Your task to perform on an android device: check google app version Image 0: 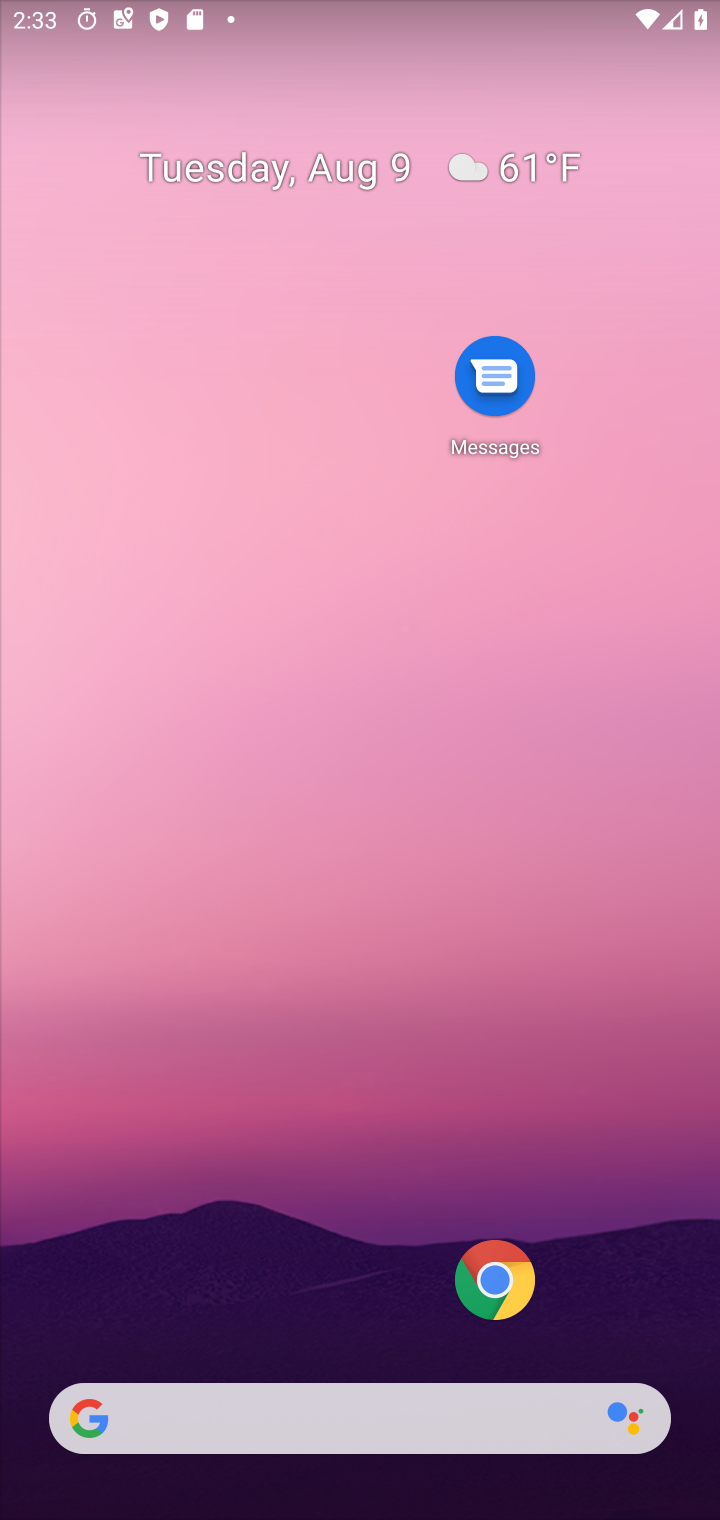
Step 0: drag from (280, 1421) to (550, 340)
Your task to perform on an android device: check google app version Image 1: 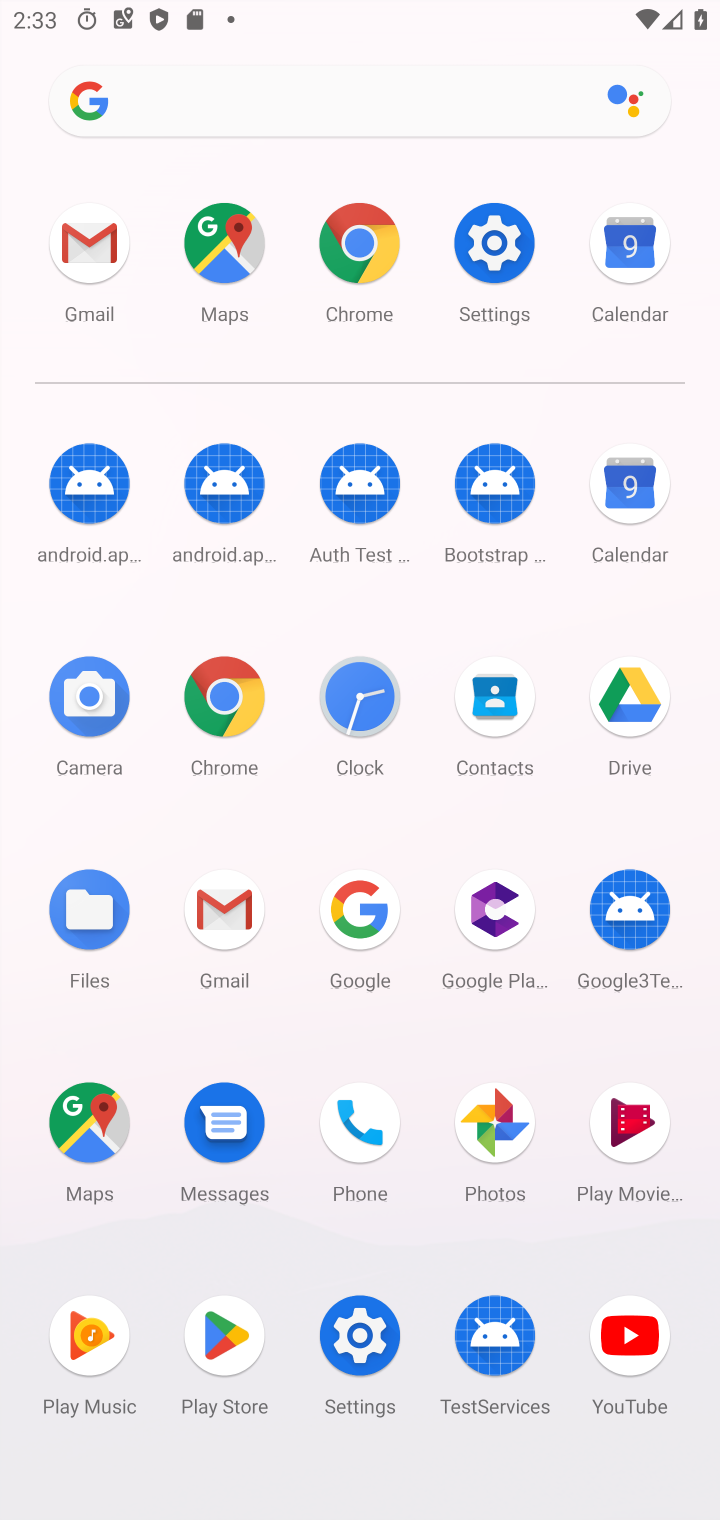
Step 1: click (349, 903)
Your task to perform on an android device: check google app version Image 2: 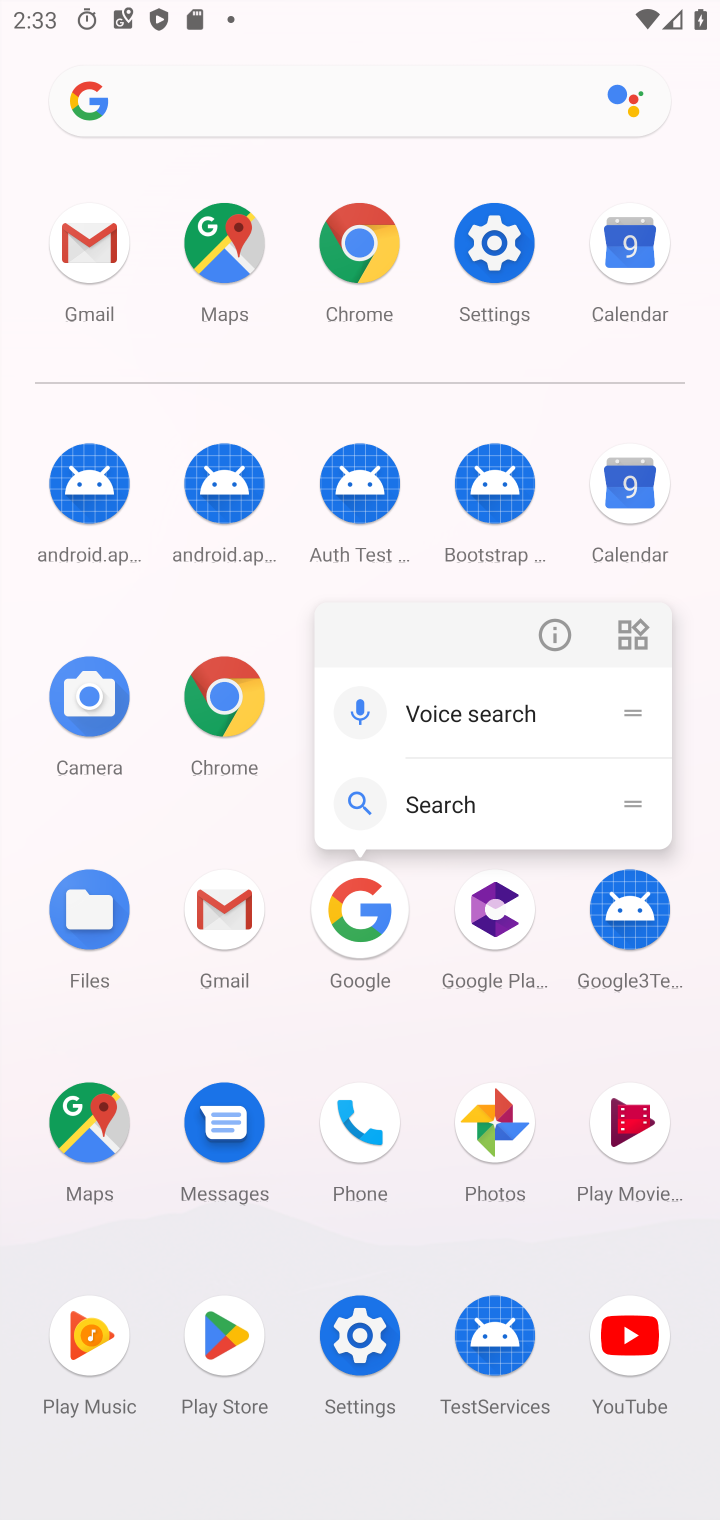
Step 2: click (544, 628)
Your task to perform on an android device: check google app version Image 3: 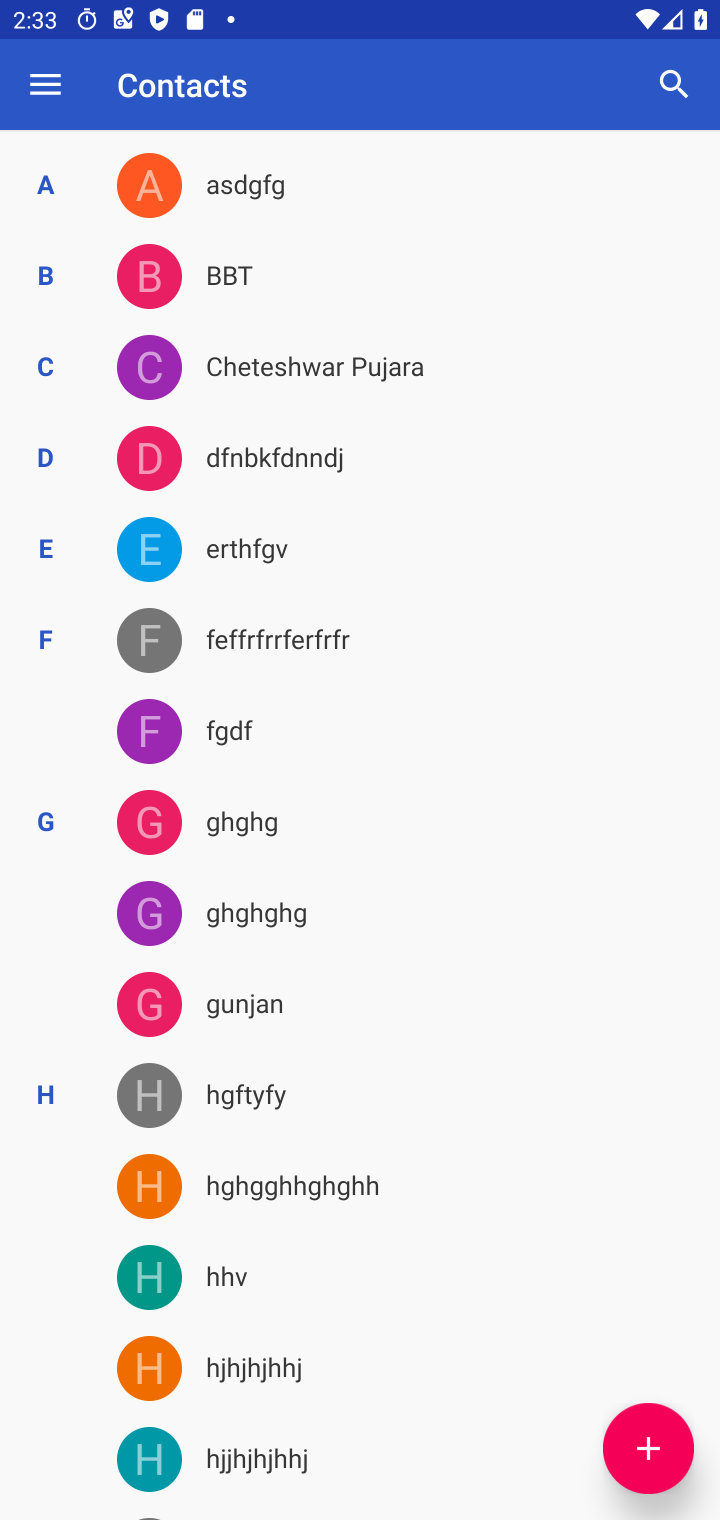
Step 3: press home button
Your task to perform on an android device: check google app version Image 4: 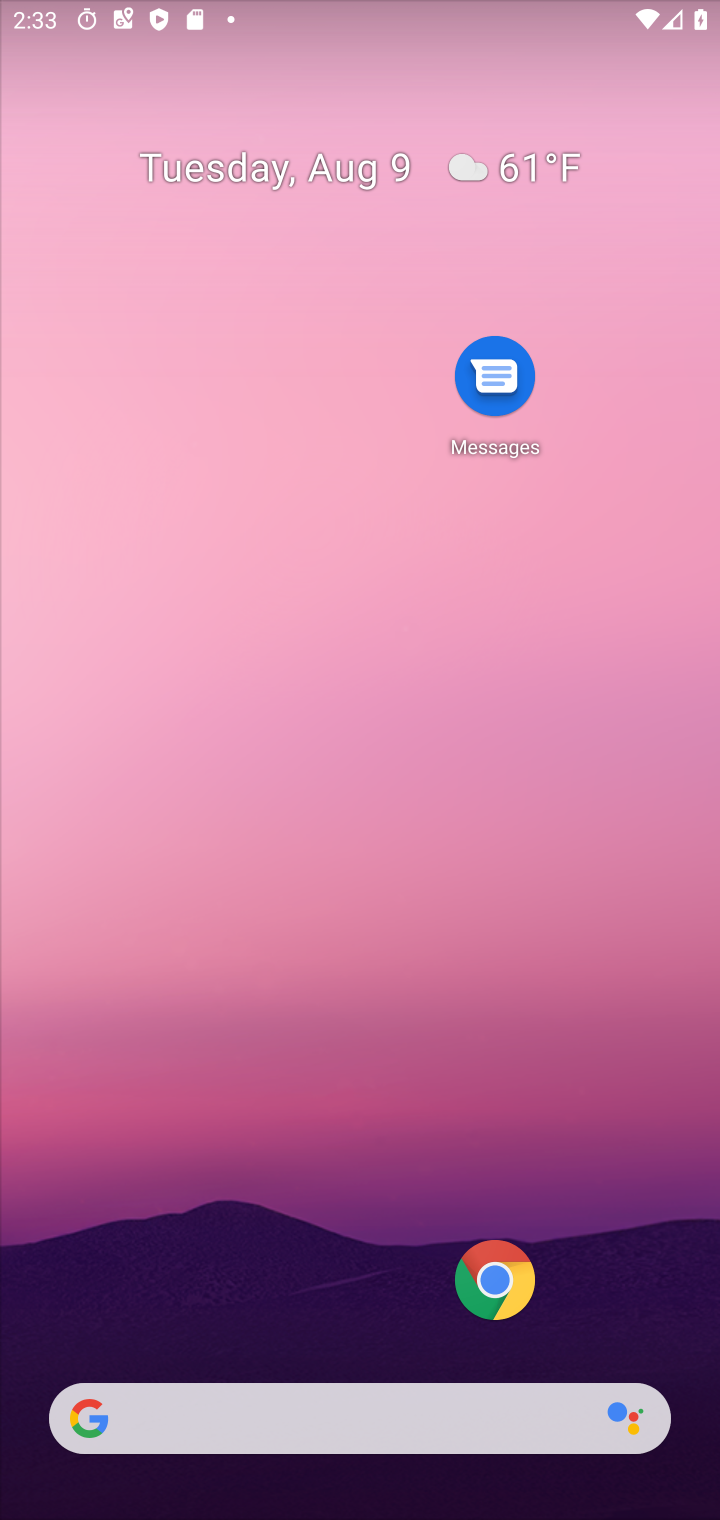
Step 4: drag from (399, 1301) to (594, 132)
Your task to perform on an android device: check google app version Image 5: 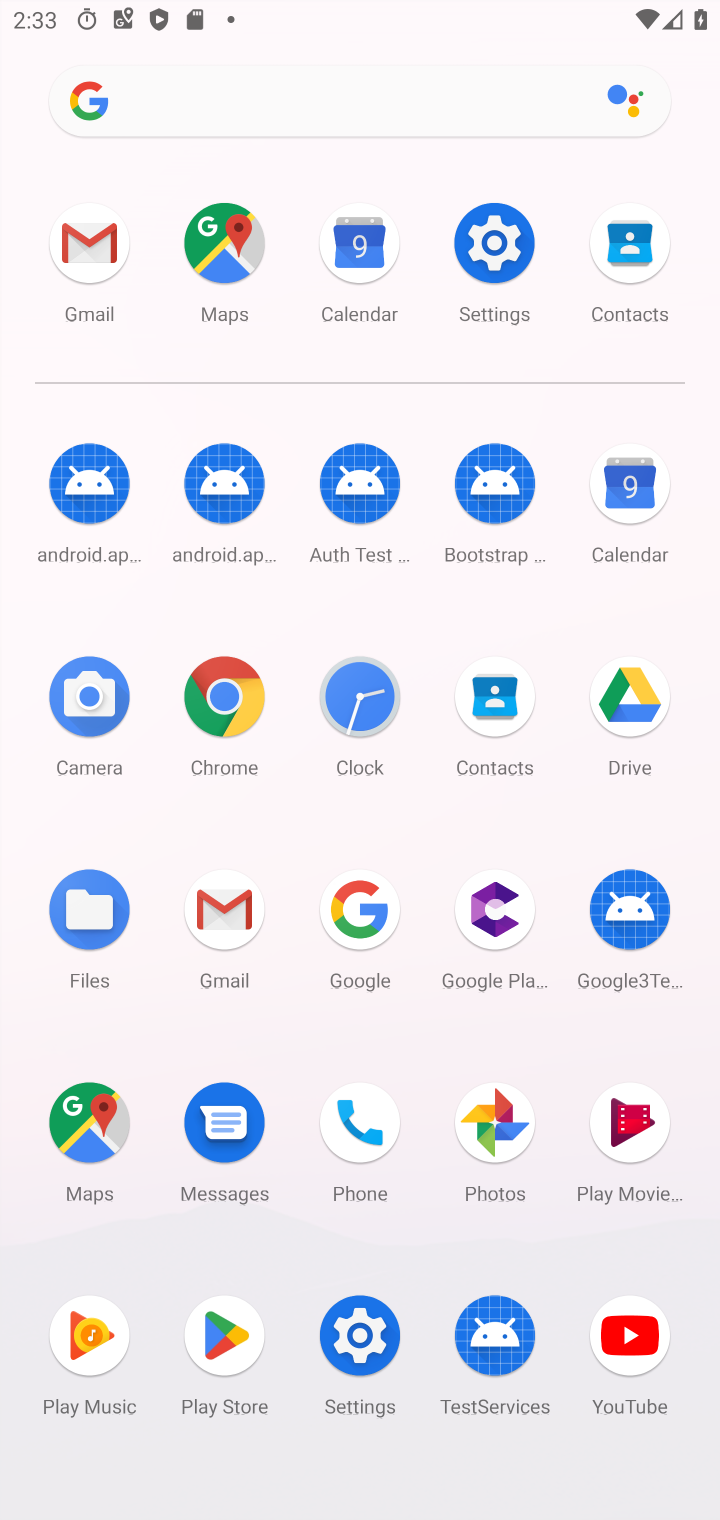
Step 5: drag from (372, 911) to (221, 983)
Your task to perform on an android device: check google app version Image 6: 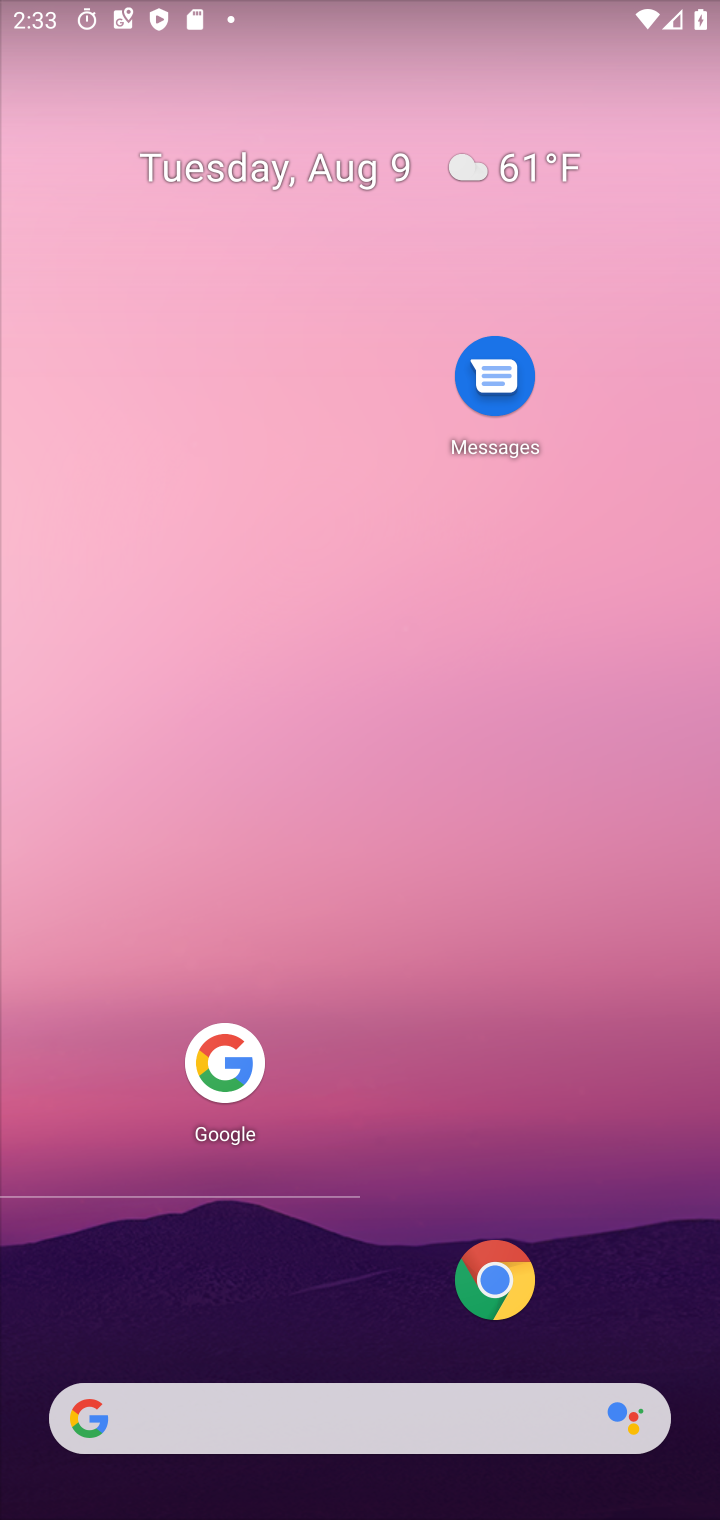
Step 6: click (246, 1029)
Your task to perform on an android device: check google app version Image 7: 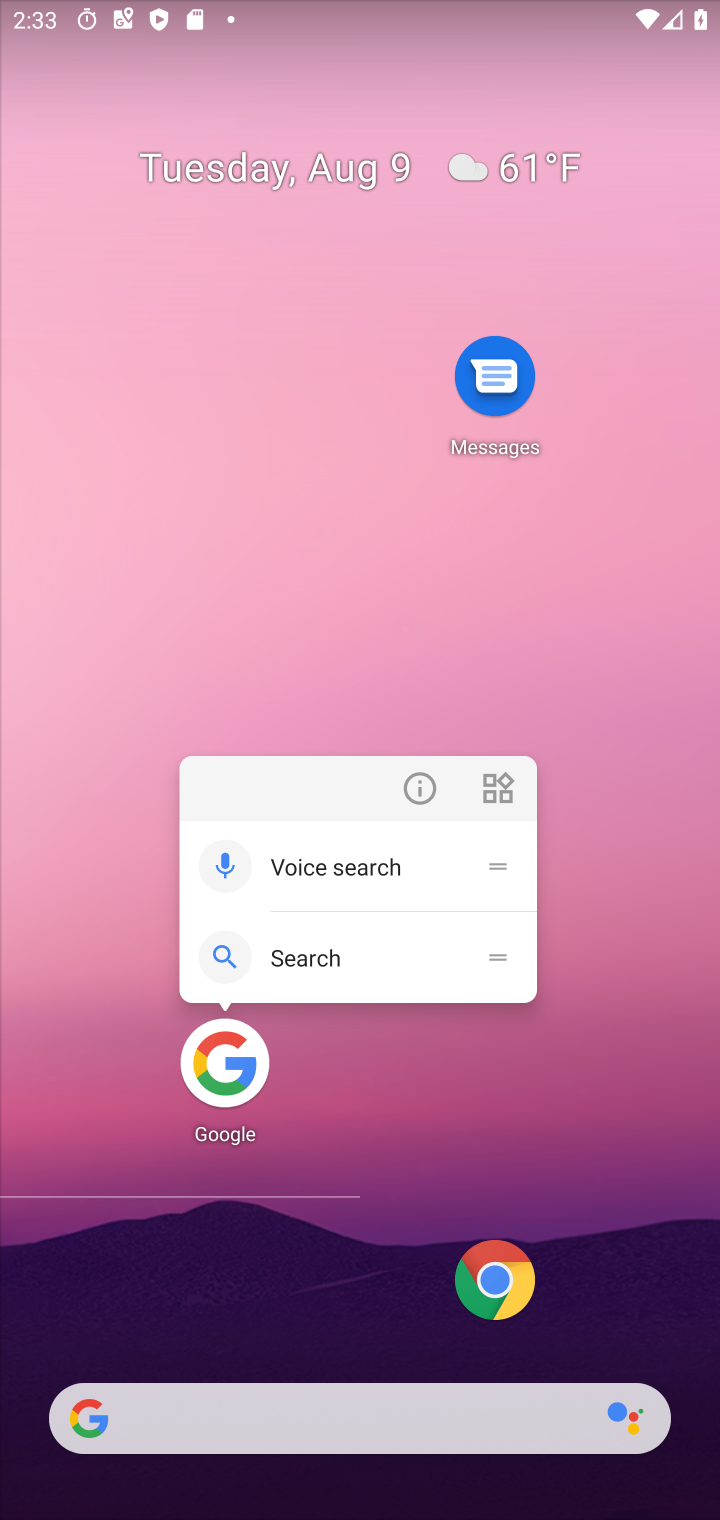
Step 7: click (422, 780)
Your task to perform on an android device: check google app version Image 8: 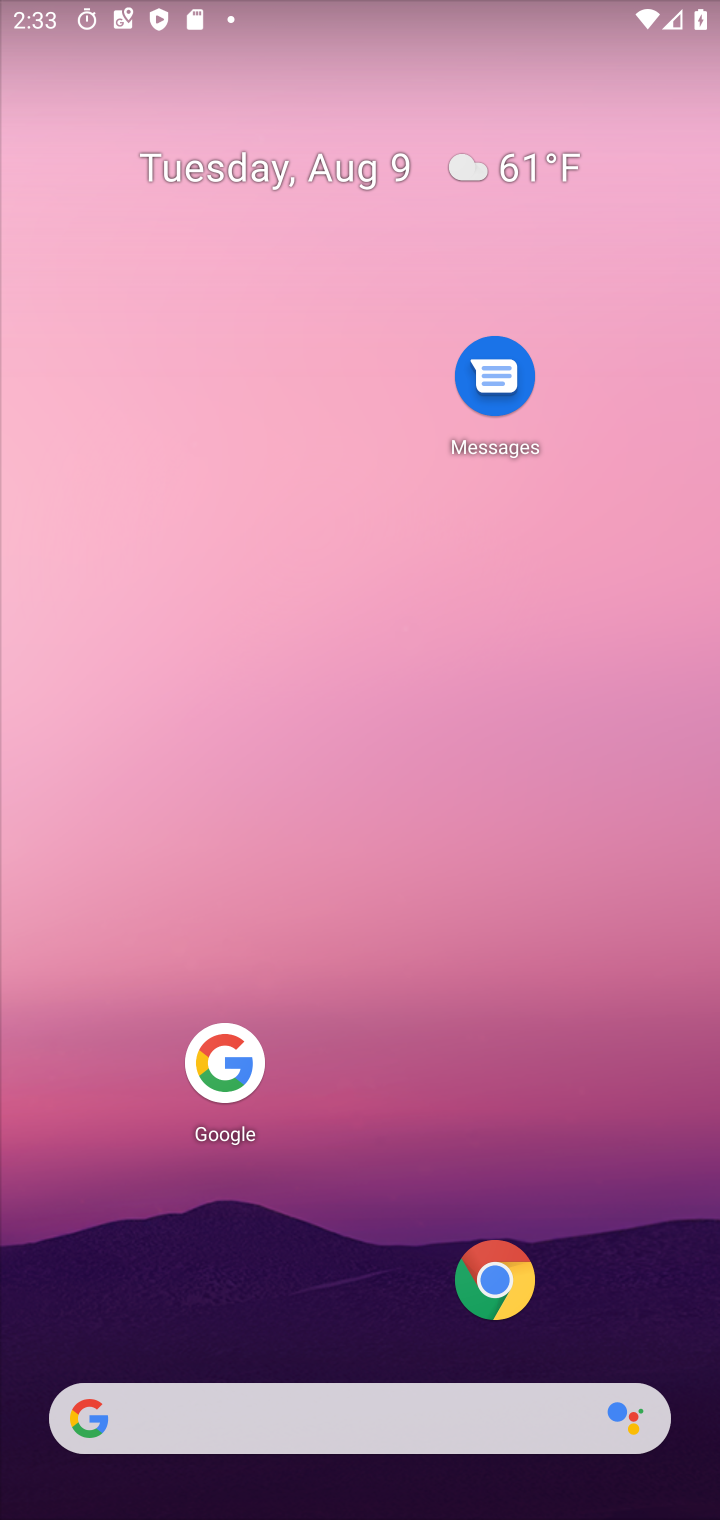
Step 8: click (219, 1068)
Your task to perform on an android device: check google app version Image 9: 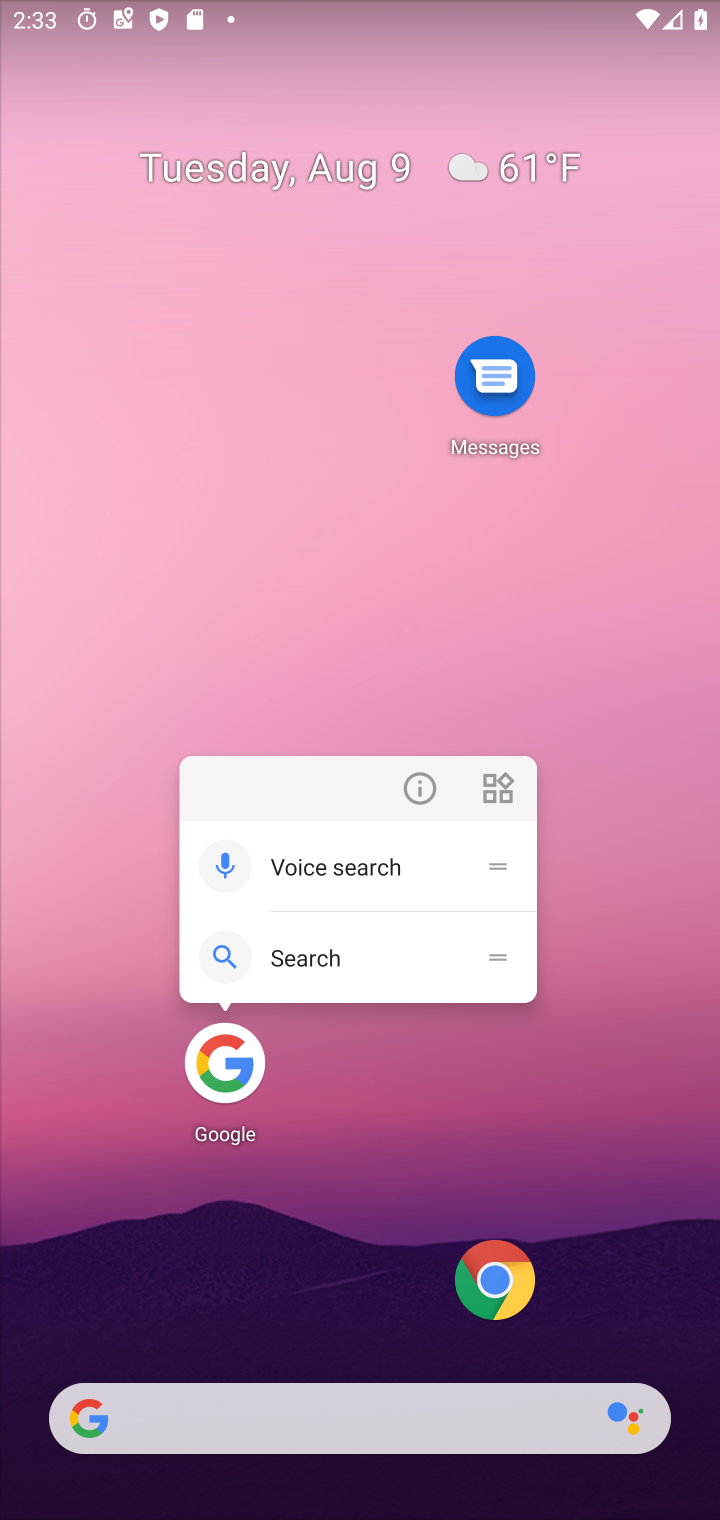
Step 9: click (421, 789)
Your task to perform on an android device: check google app version Image 10: 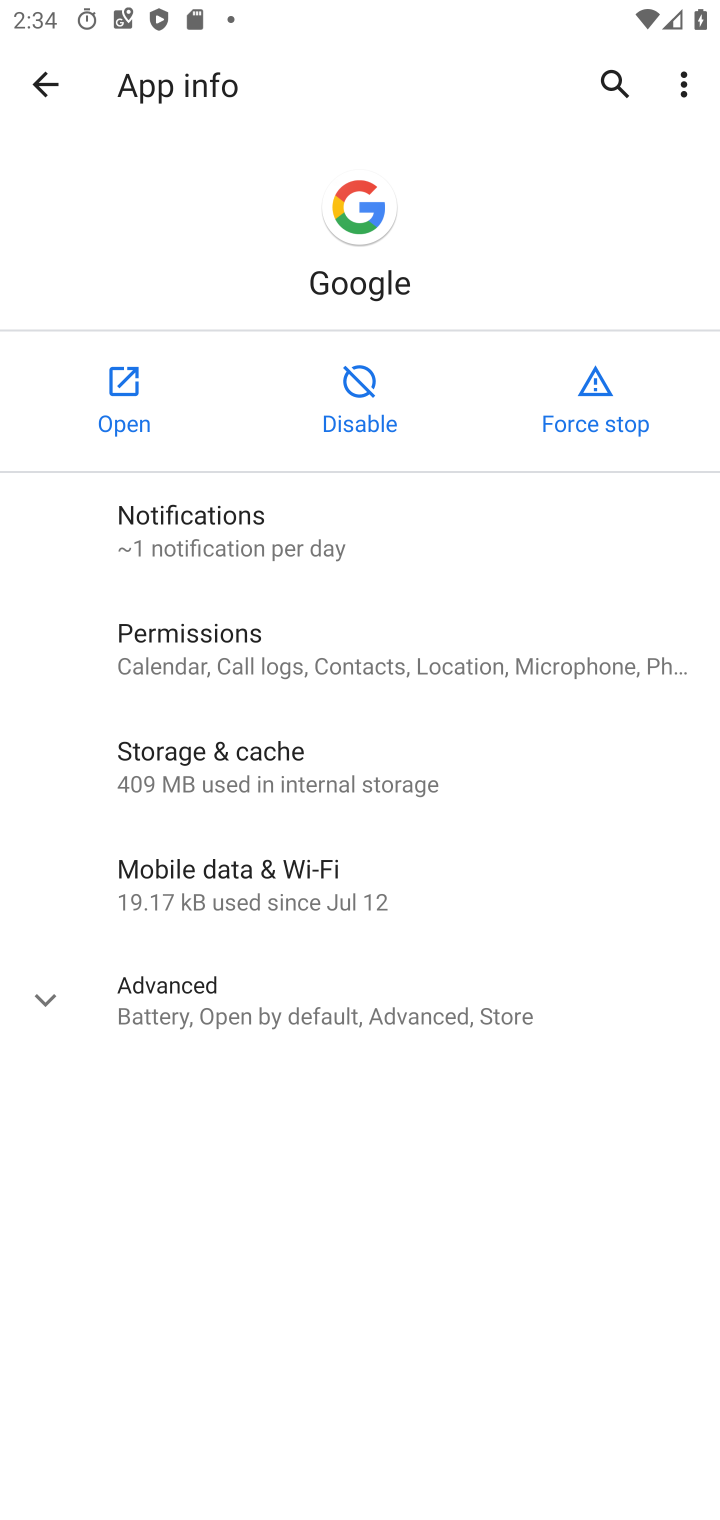
Step 10: click (165, 974)
Your task to perform on an android device: check google app version Image 11: 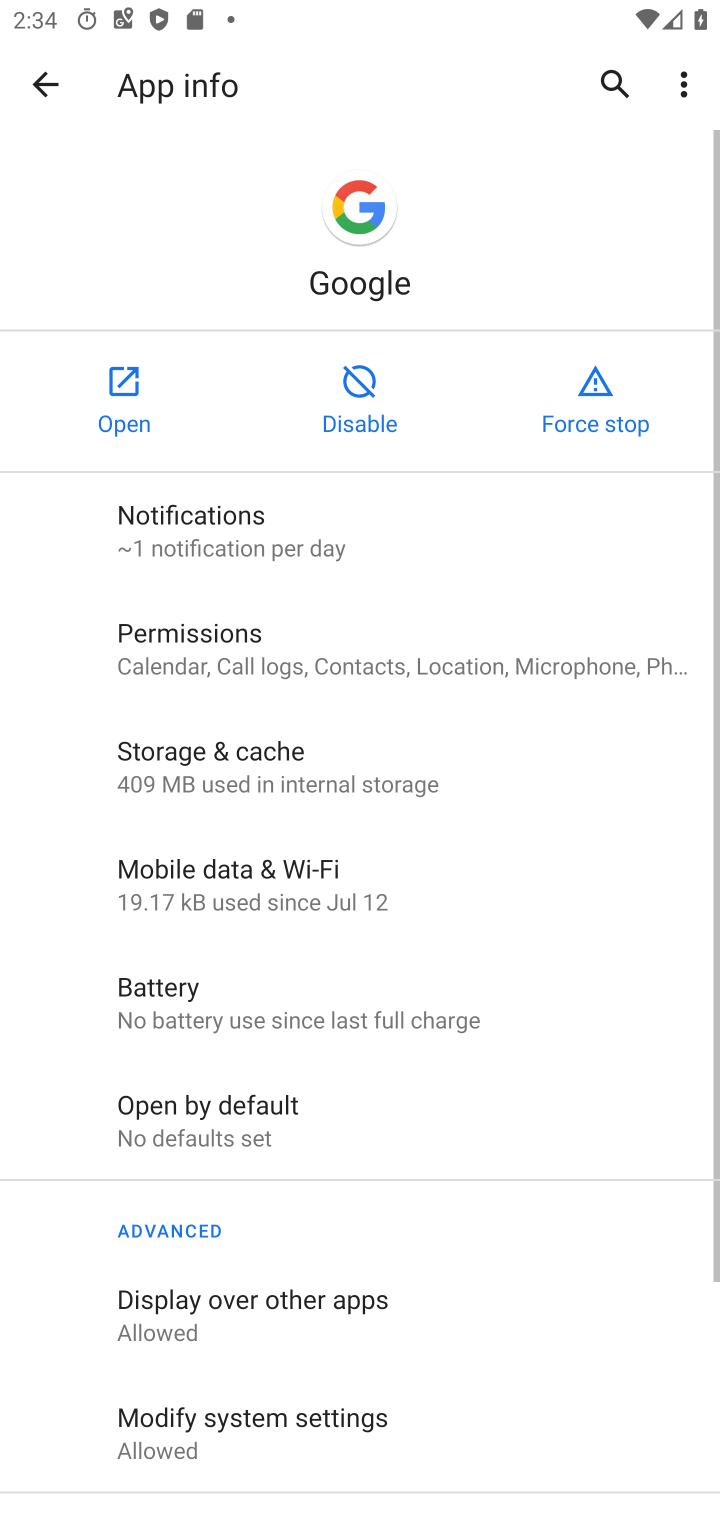
Step 11: task complete